Your task to perform on an android device: Search for pizza restaurants on Maps Image 0: 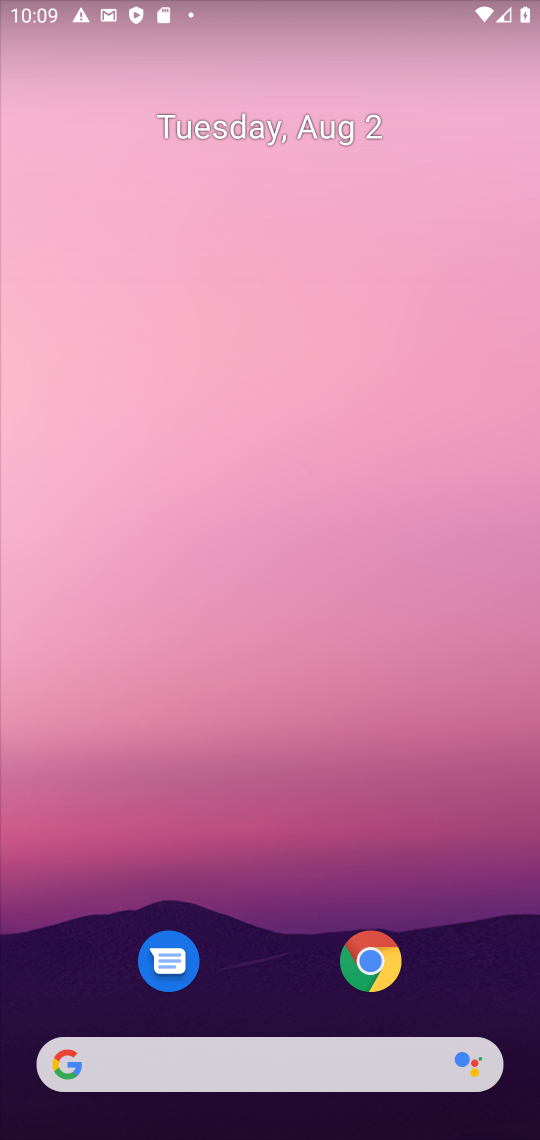
Step 0: press home button
Your task to perform on an android device: Search for pizza restaurants on Maps Image 1: 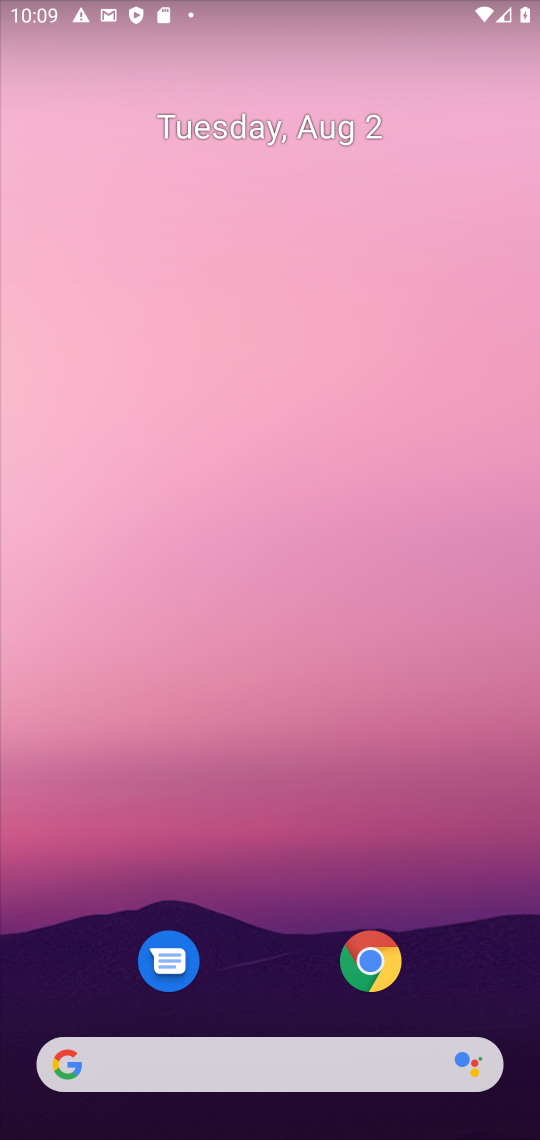
Step 1: drag from (272, 927) to (319, 521)
Your task to perform on an android device: Search for pizza restaurants on Maps Image 2: 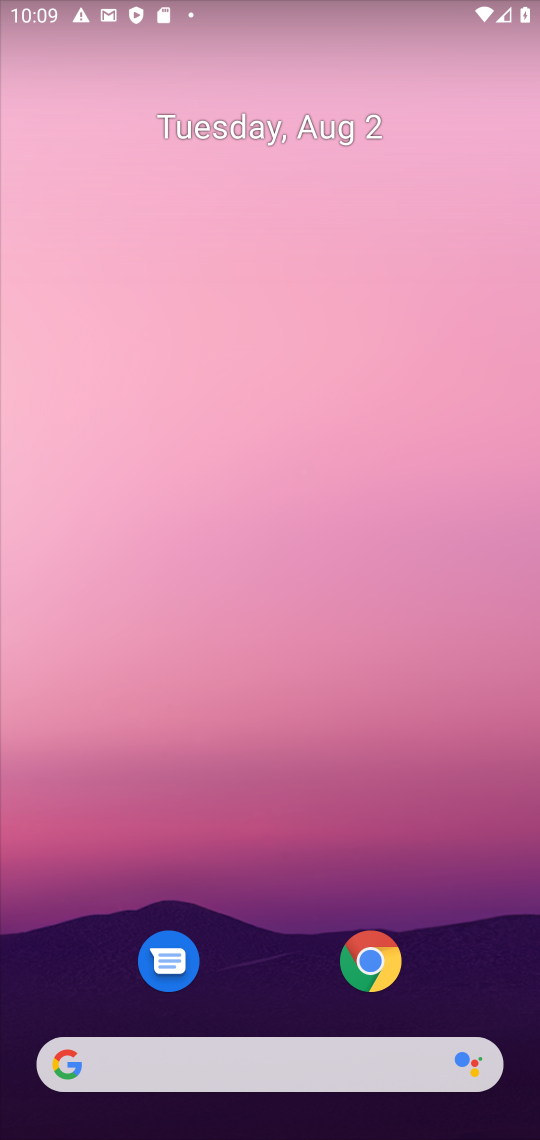
Step 2: drag from (248, 963) to (292, 310)
Your task to perform on an android device: Search for pizza restaurants on Maps Image 3: 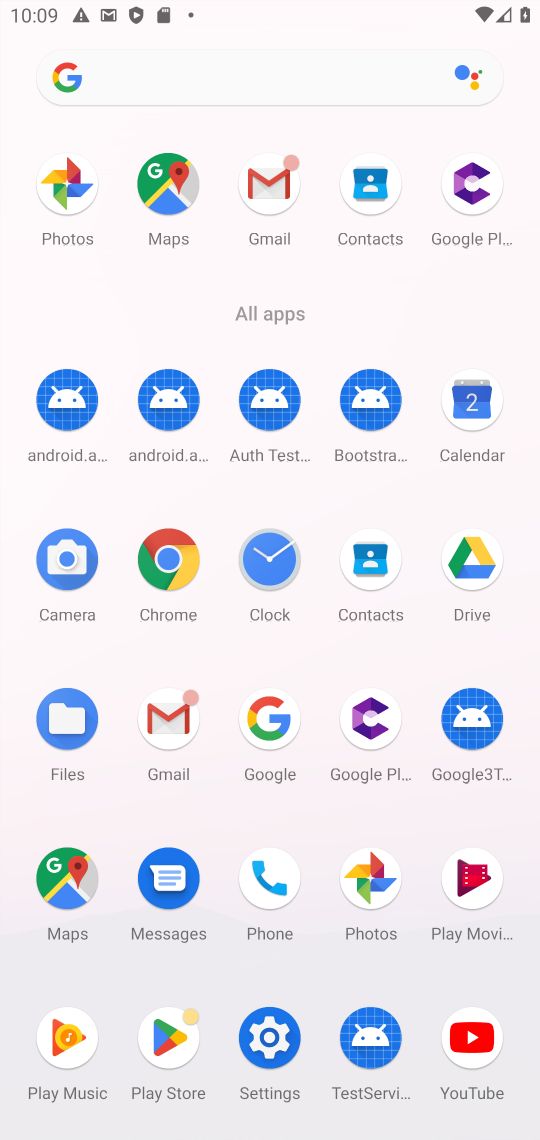
Step 3: click (77, 842)
Your task to perform on an android device: Search for pizza restaurants on Maps Image 4: 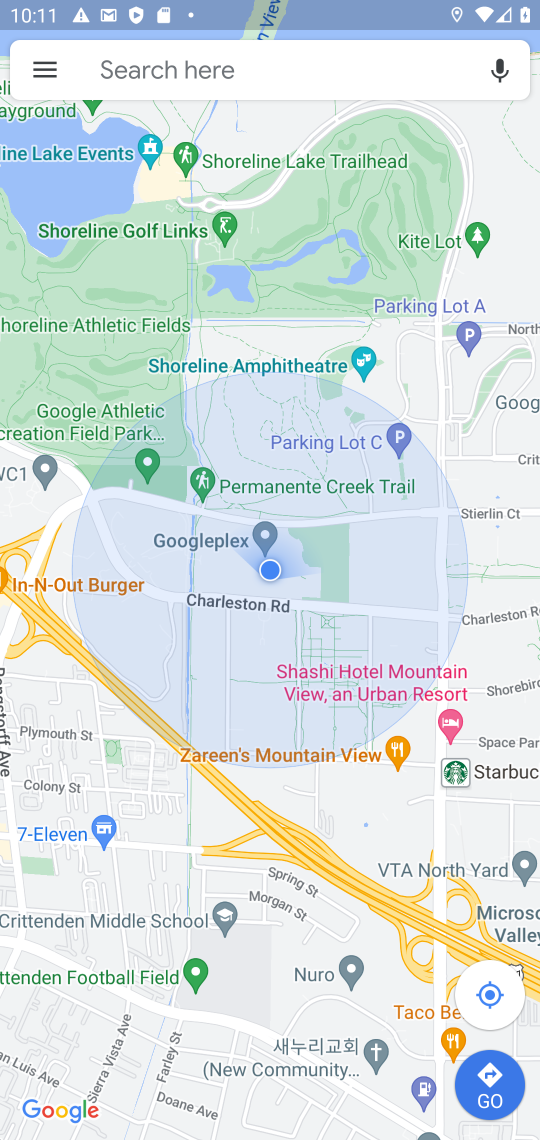
Step 4: click (273, 72)
Your task to perform on an android device: Search for pizza restaurants on Maps Image 5: 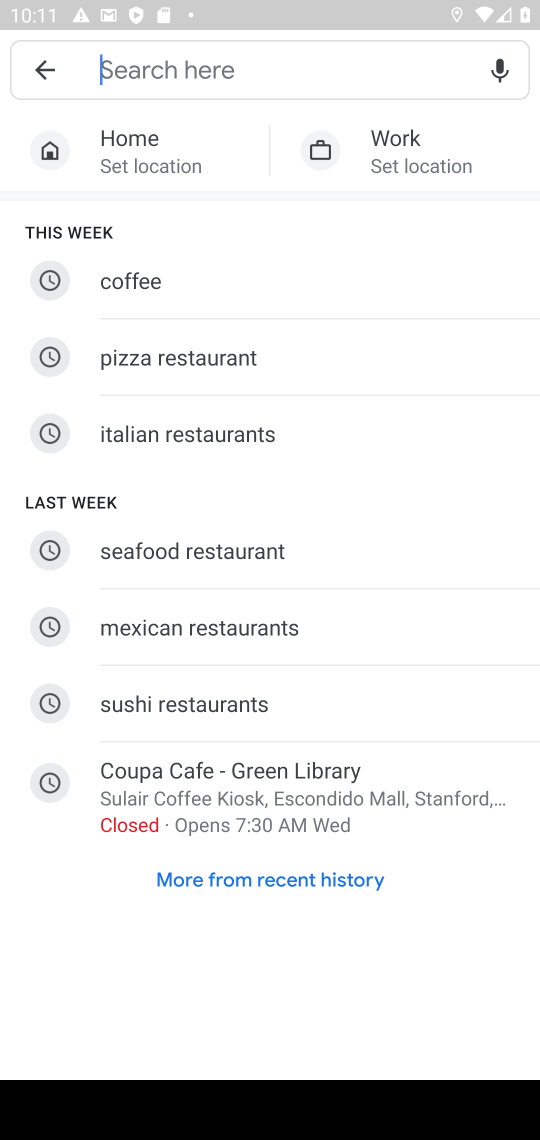
Step 5: click (264, 68)
Your task to perform on an android device: Search for pizza restaurants on Maps Image 6: 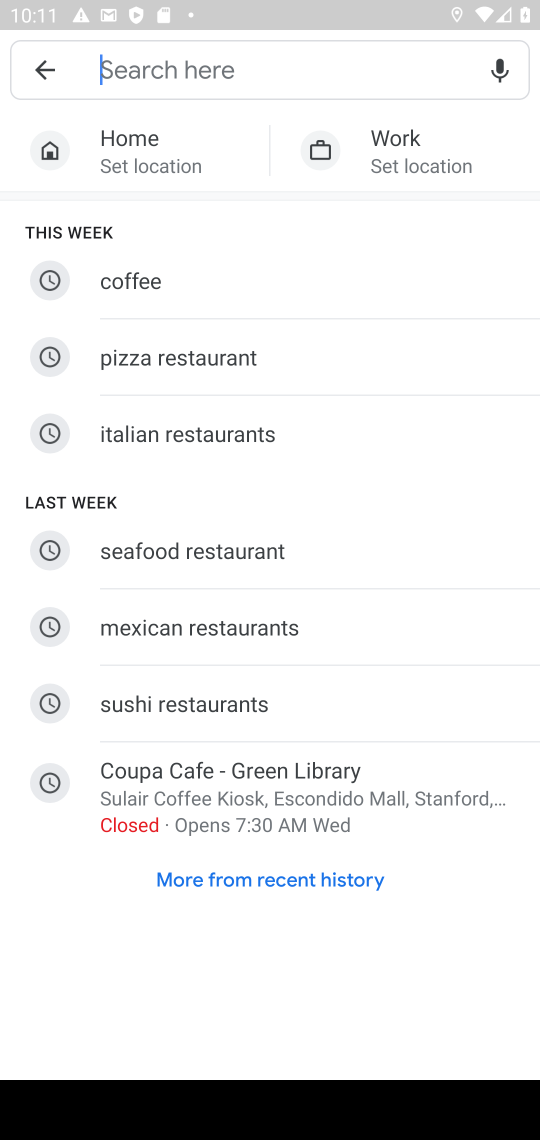
Step 6: type "pizza restaurants "
Your task to perform on an android device: Search for pizza restaurants on Maps Image 7: 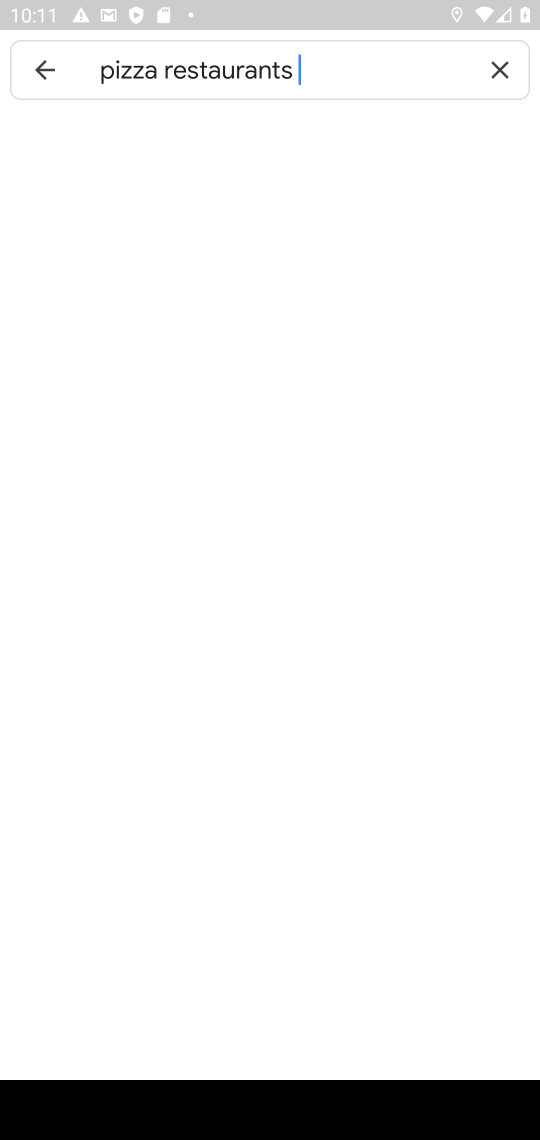
Step 7: type ""
Your task to perform on an android device: Search for pizza restaurants on Maps Image 8: 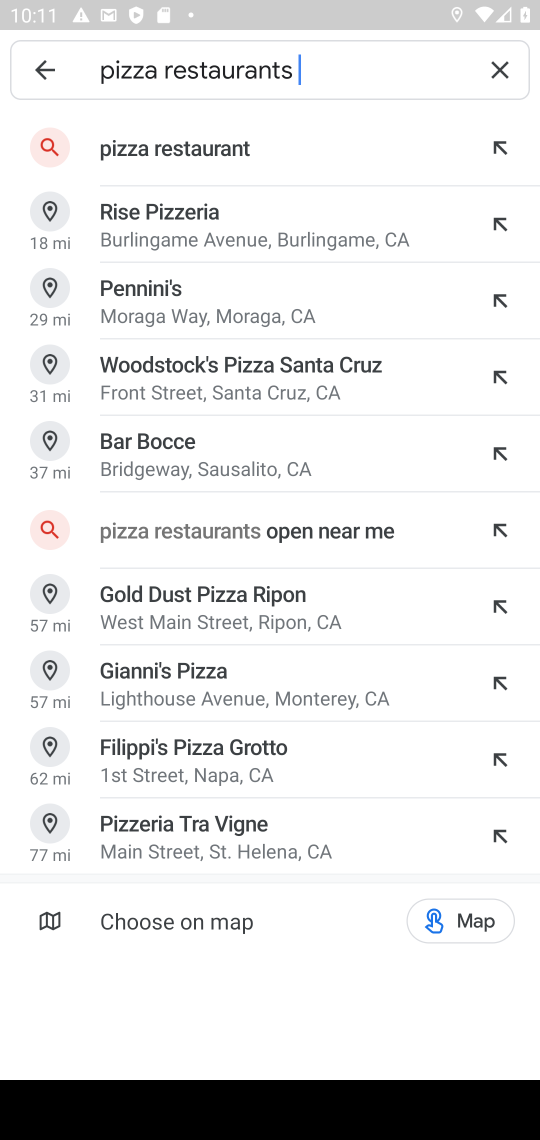
Step 8: click (117, 150)
Your task to perform on an android device: Search for pizza restaurants on Maps Image 9: 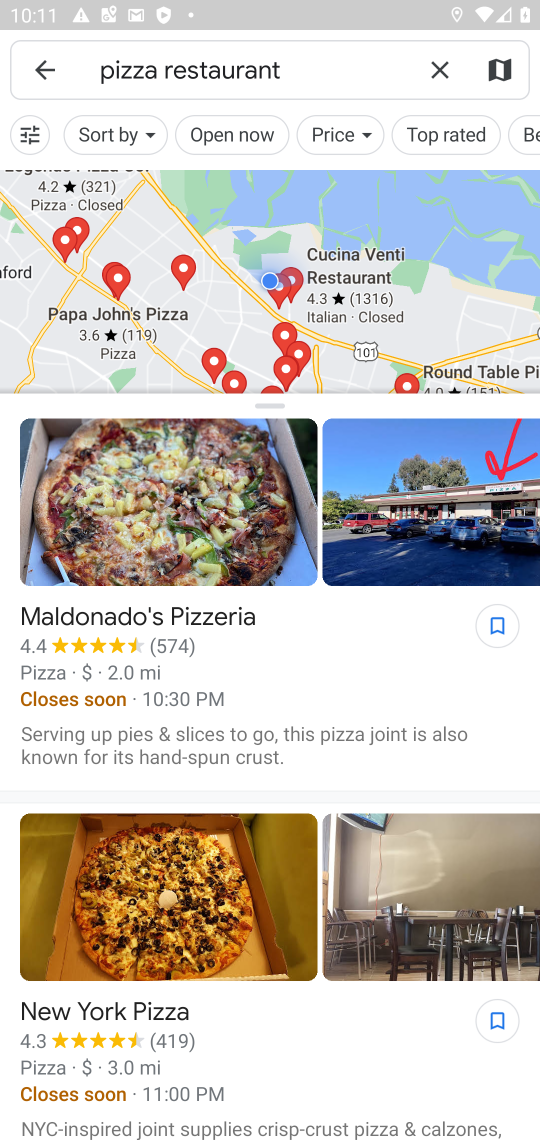
Step 9: task complete